Your task to perform on an android device: open app "Indeed Job Search" Image 0: 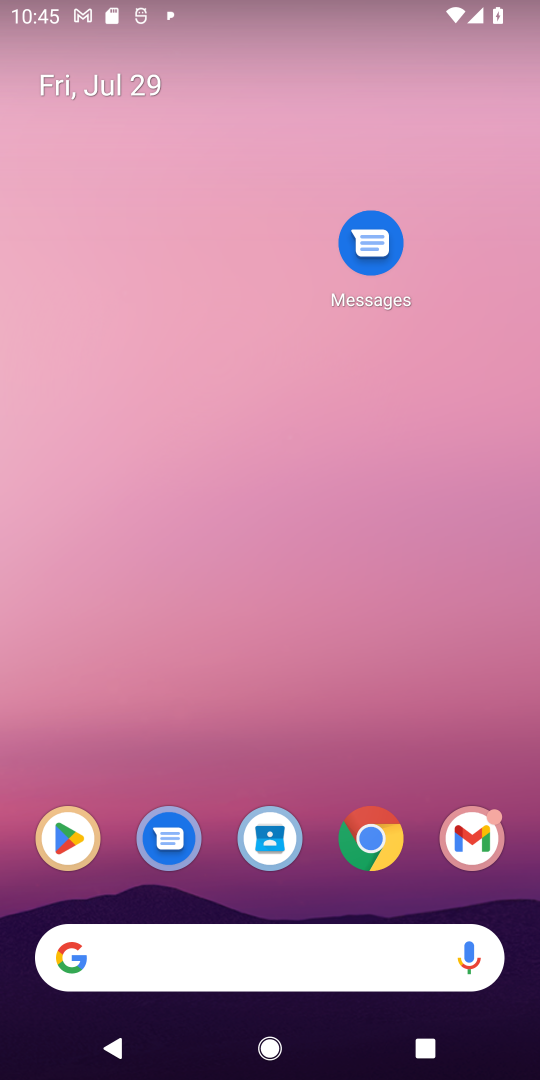
Step 0: click (53, 829)
Your task to perform on an android device: open app "Indeed Job Search" Image 1: 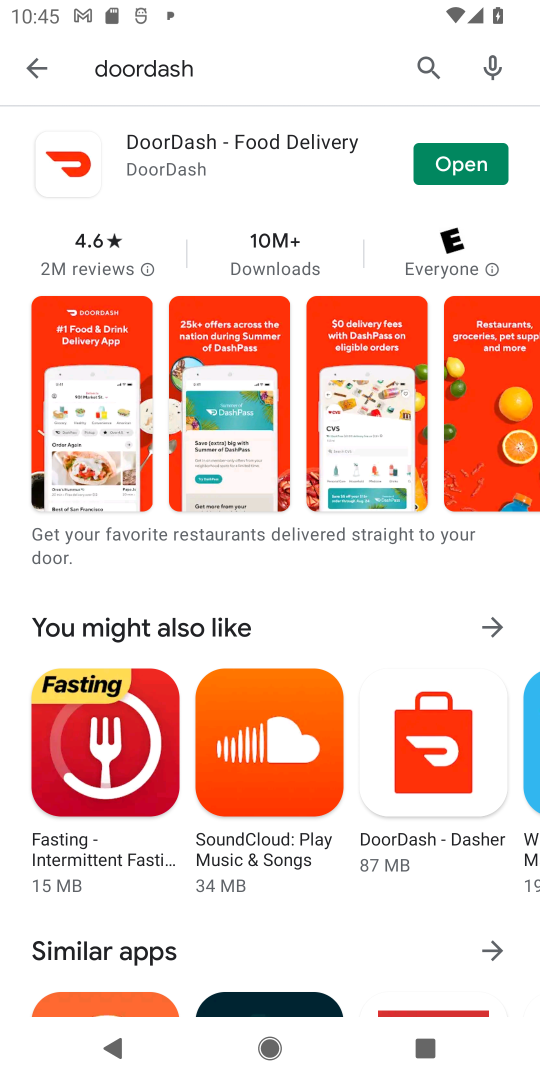
Step 1: click (200, 71)
Your task to perform on an android device: open app "Indeed Job Search" Image 2: 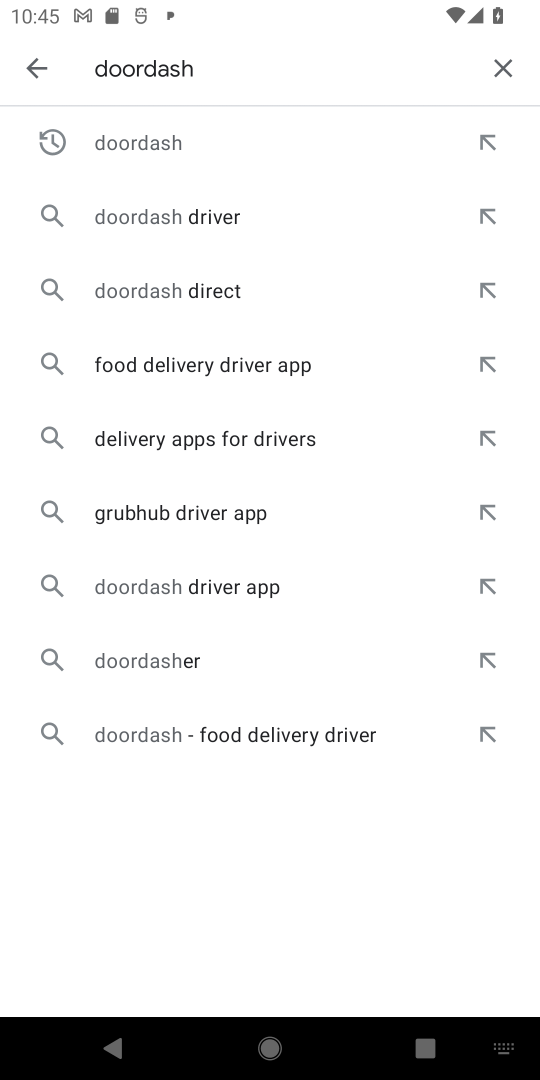
Step 2: click (499, 61)
Your task to perform on an android device: open app "Indeed Job Search" Image 3: 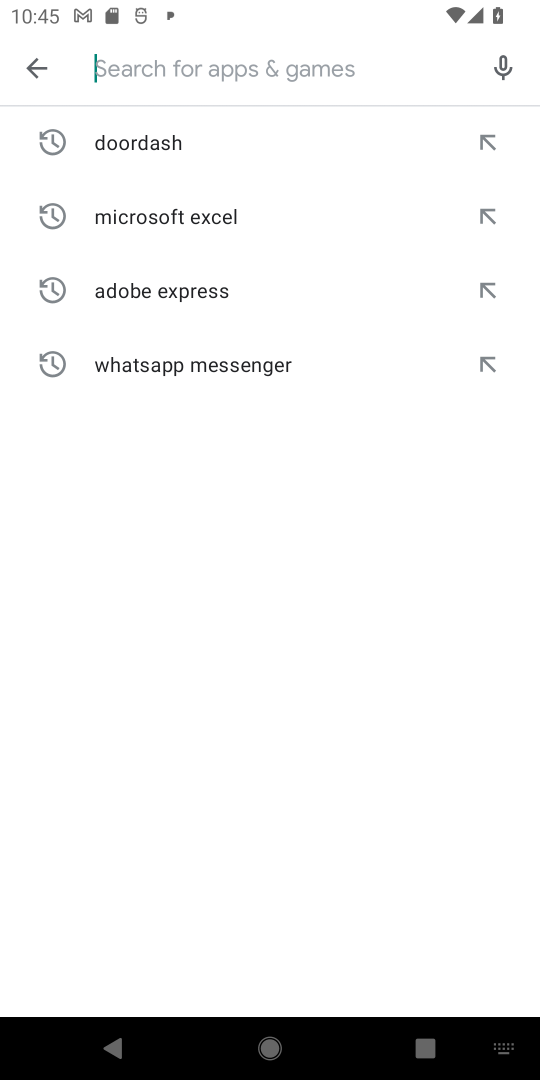
Step 3: type "Indeed Job search"
Your task to perform on an android device: open app "Indeed Job Search" Image 4: 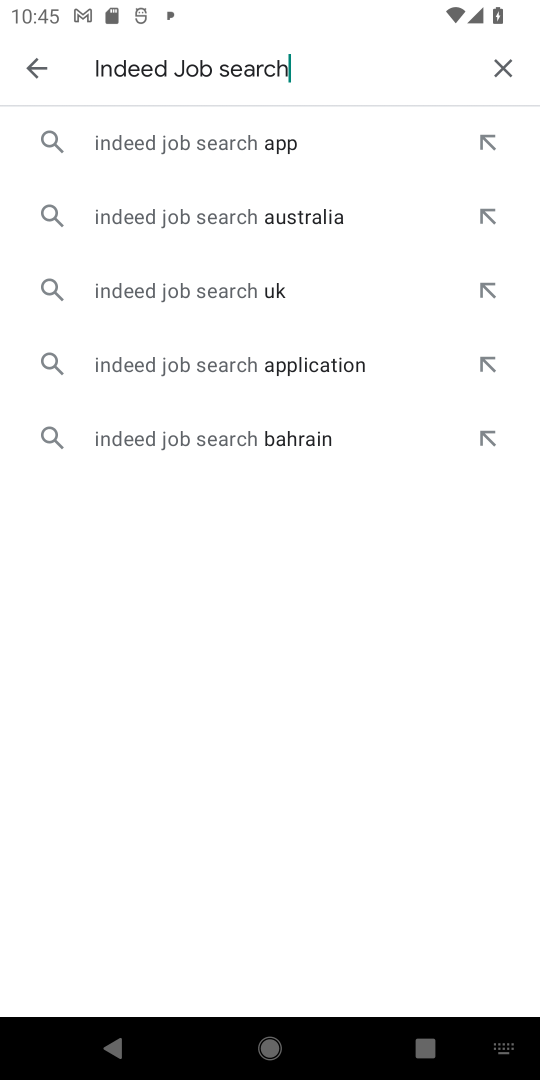
Step 4: click (173, 150)
Your task to perform on an android device: open app "Indeed Job Search" Image 5: 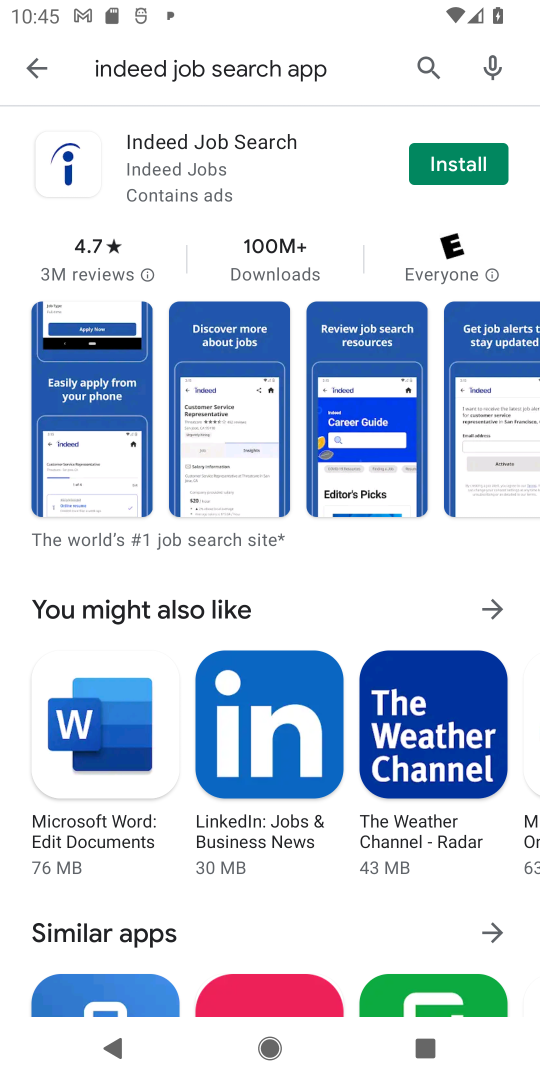
Step 5: task complete